Your task to perform on an android device: turn on improve location accuracy Image 0: 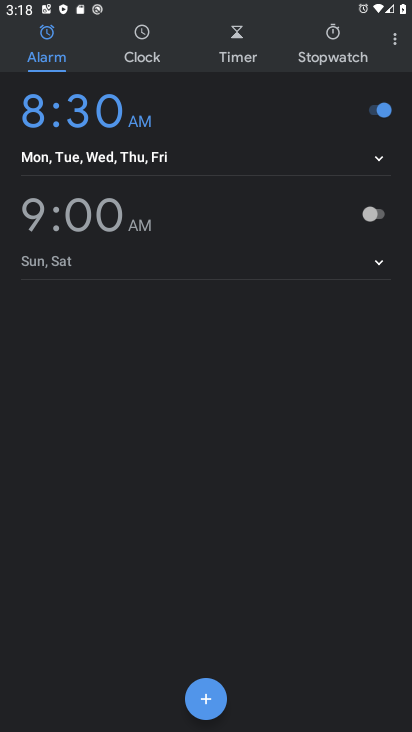
Step 0: press back button
Your task to perform on an android device: turn on improve location accuracy Image 1: 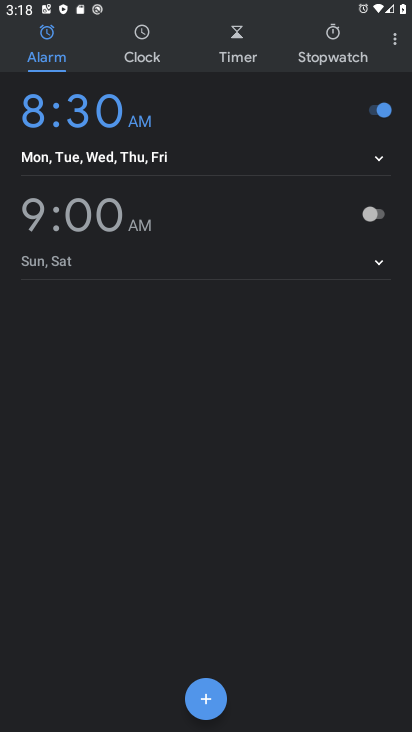
Step 1: press home button
Your task to perform on an android device: turn on improve location accuracy Image 2: 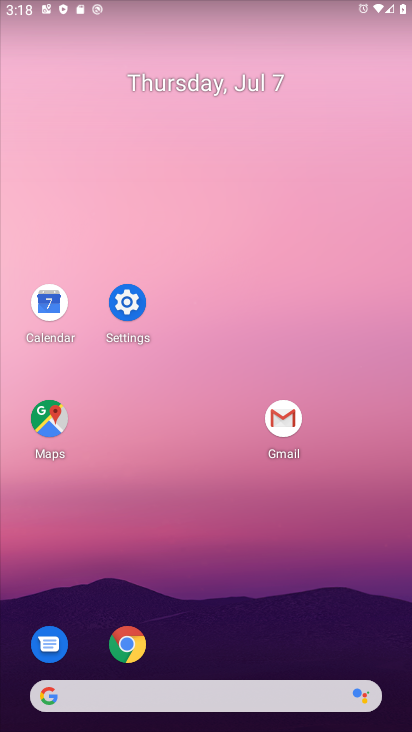
Step 2: drag from (402, 704) to (358, 191)
Your task to perform on an android device: turn on improve location accuracy Image 3: 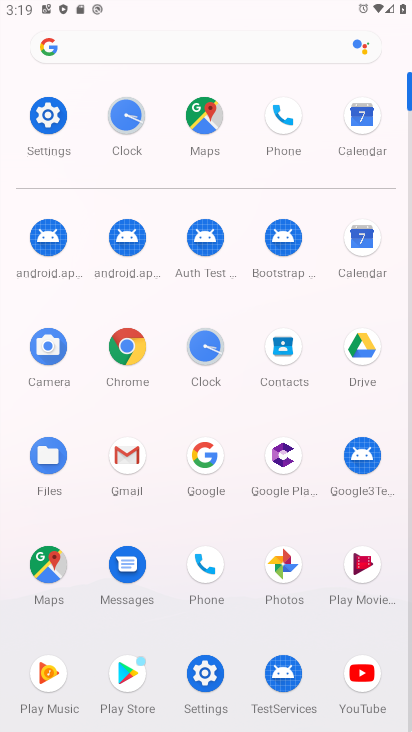
Step 3: click (198, 662)
Your task to perform on an android device: turn on improve location accuracy Image 4: 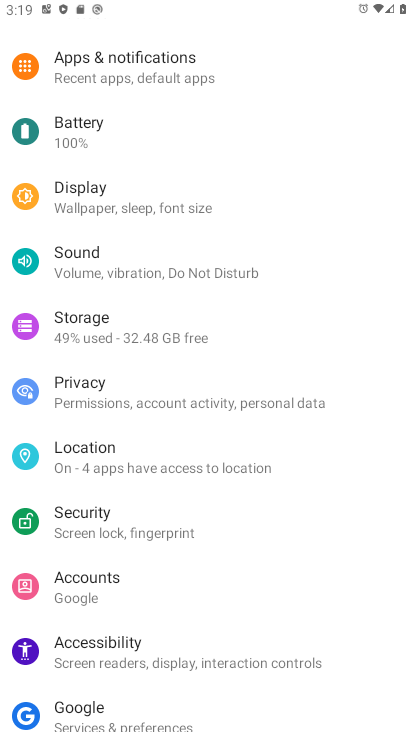
Step 4: click (76, 364)
Your task to perform on an android device: turn on improve location accuracy Image 5: 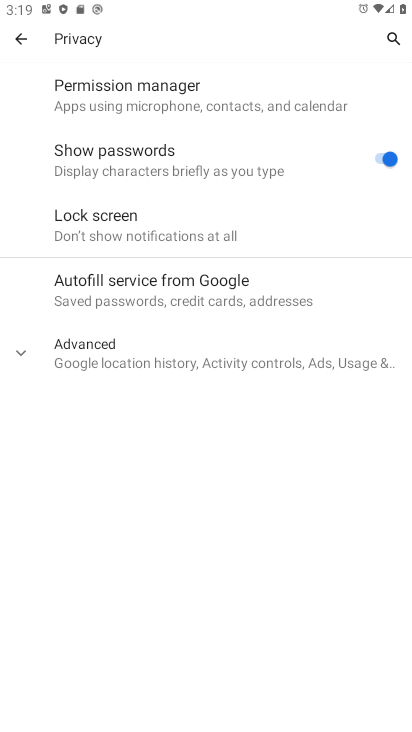
Step 5: press back button
Your task to perform on an android device: turn on improve location accuracy Image 6: 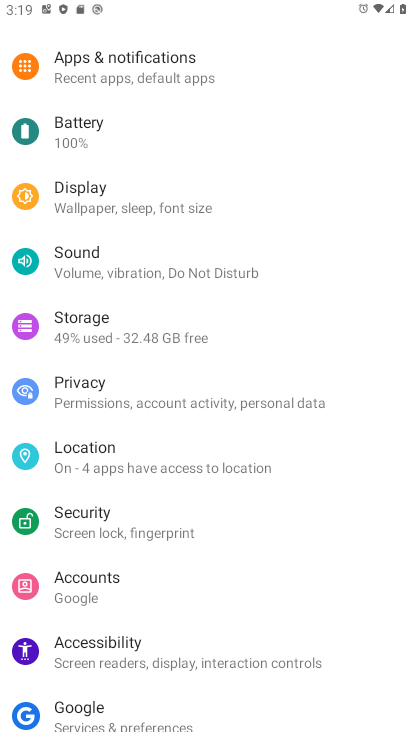
Step 6: click (82, 452)
Your task to perform on an android device: turn on improve location accuracy Image 7: 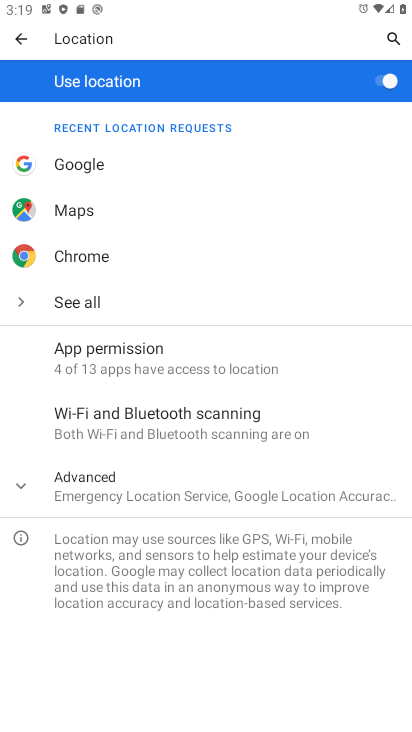
Step 7: click (32, 486)
Your task to perform on an android device: turn on improve location accuracy Image 8: 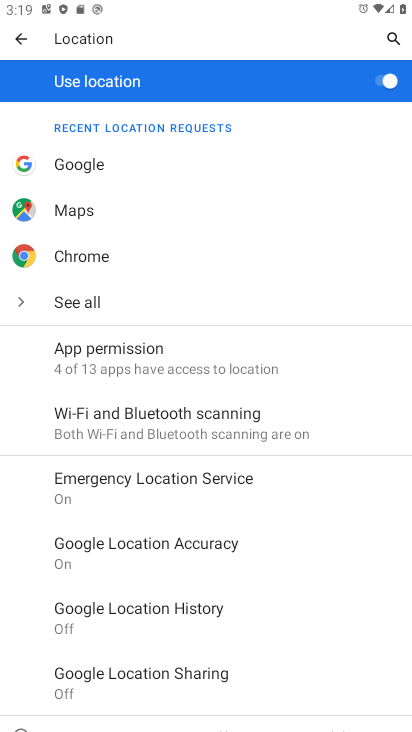
Step 8: click (175, 538)
Your task to perform on an android device: turn on improve location accuracy Image 9: 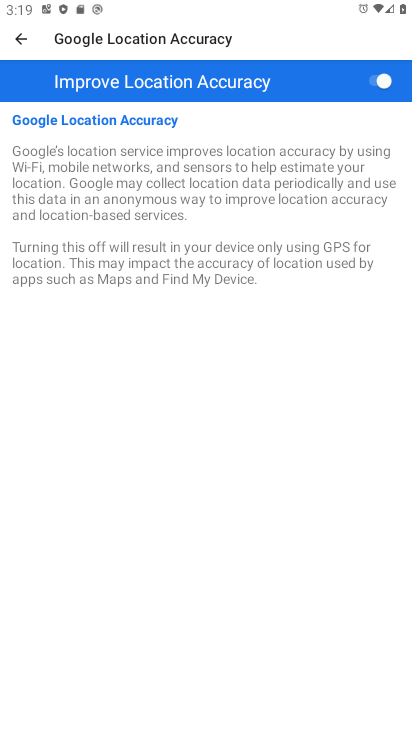
Step 9: task complete